Your task to perform on an android device: uninstall "Google Chat" Image 0: 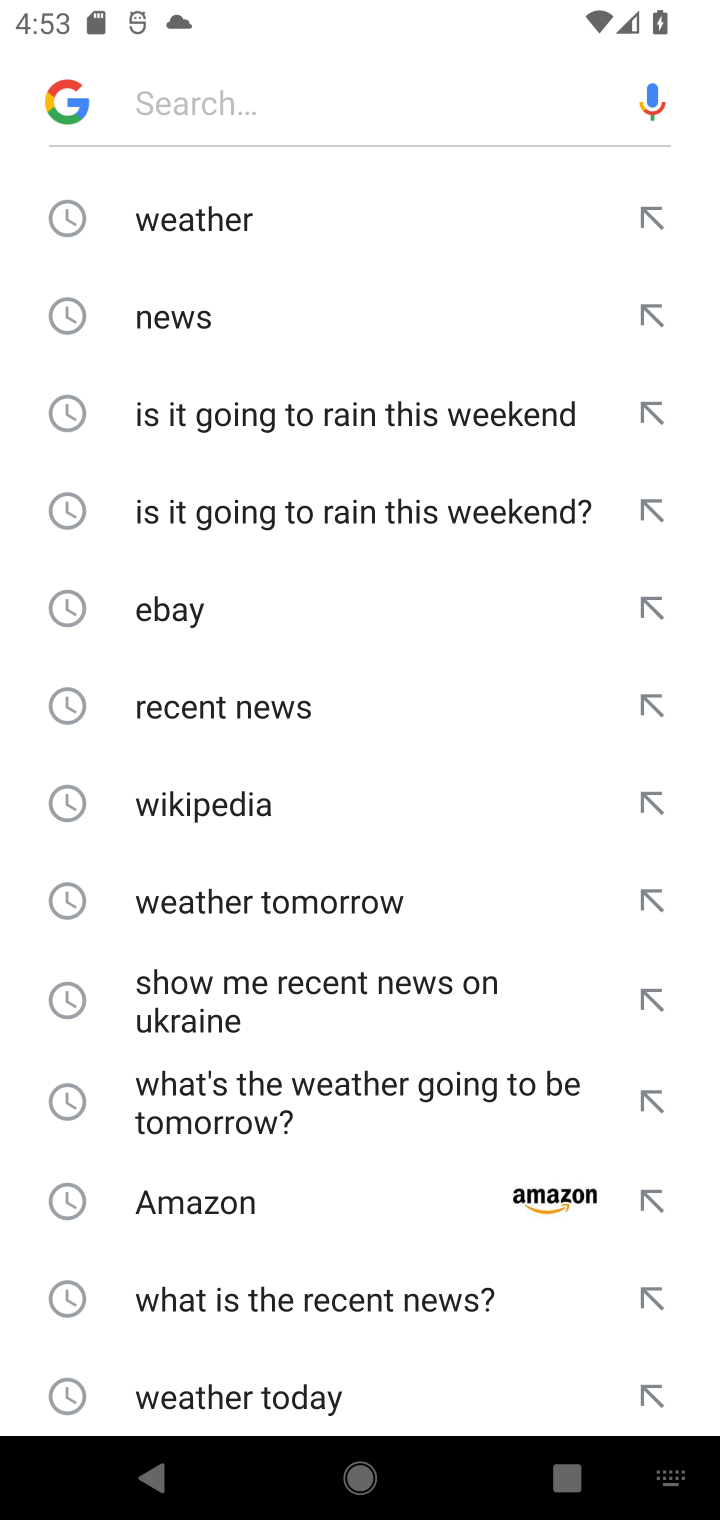
Step 0: press home button
Your task to perform on an android device: uninstall "Google Chat" Image 1: 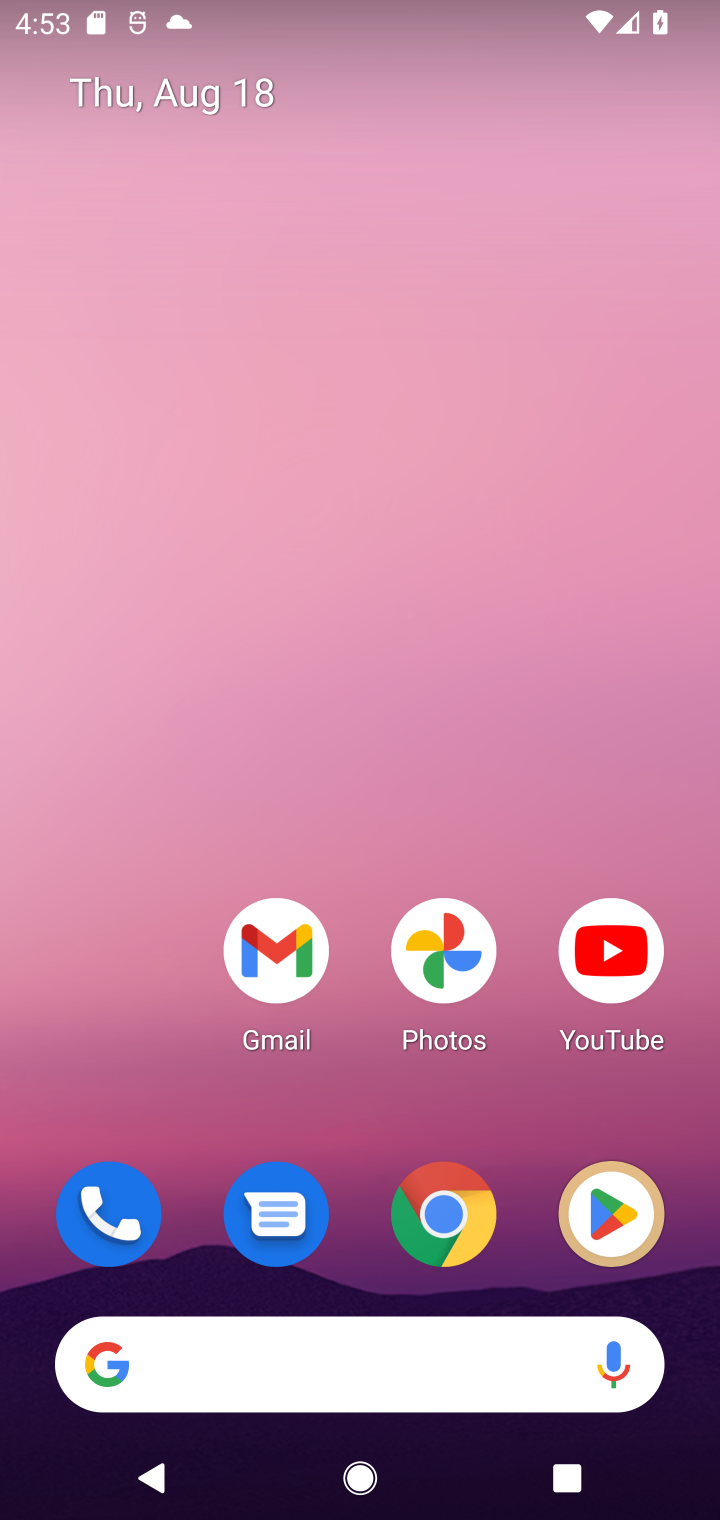
Step 1: click (590, 1203)
Your task to perform on an android device: uninstall "Google Chat" Image 2: 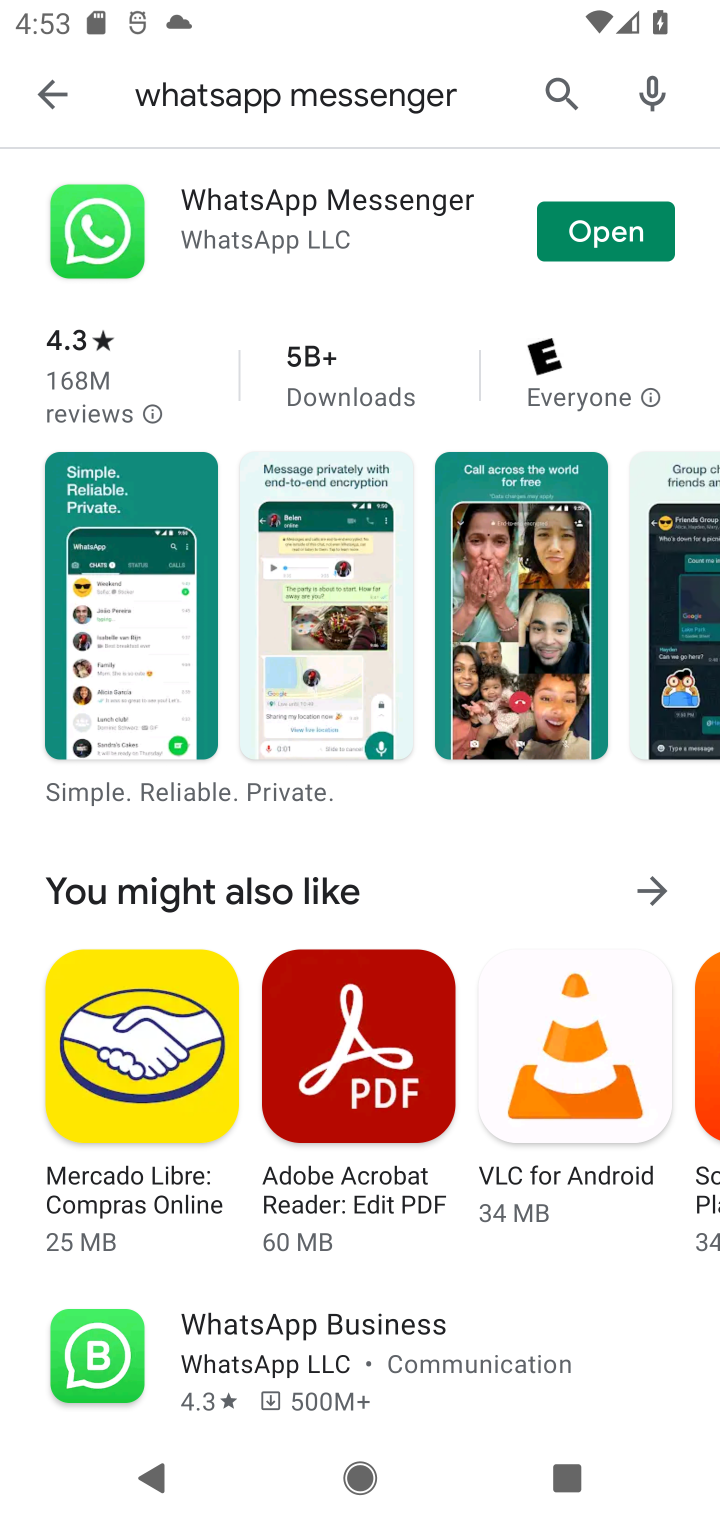
Step 2: click (311, 104)
Your task to perform on an android device: uninstall "Google Chat" Image 3: 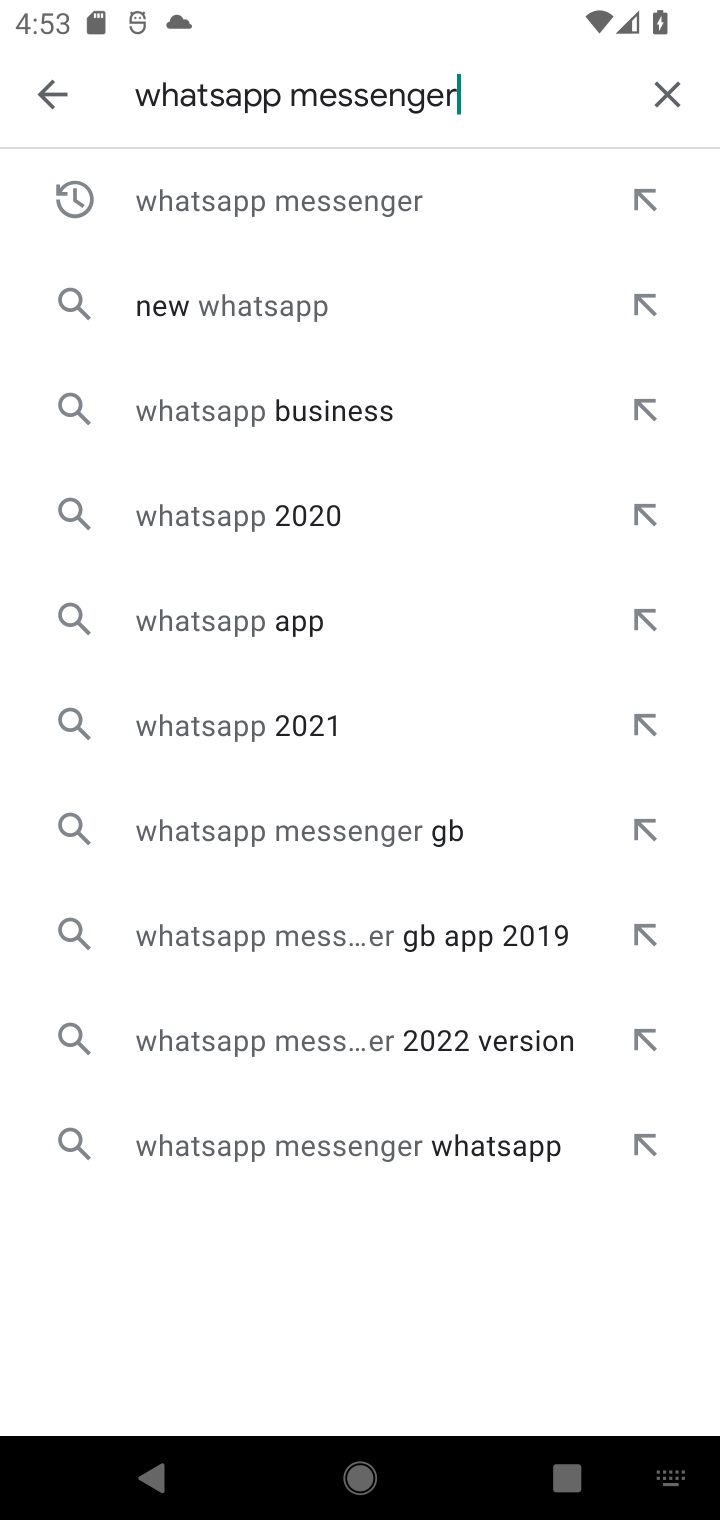
Step 3: click (660, 86)
Your task to perform on an android device: uninstall "Google Chat" Image 4: 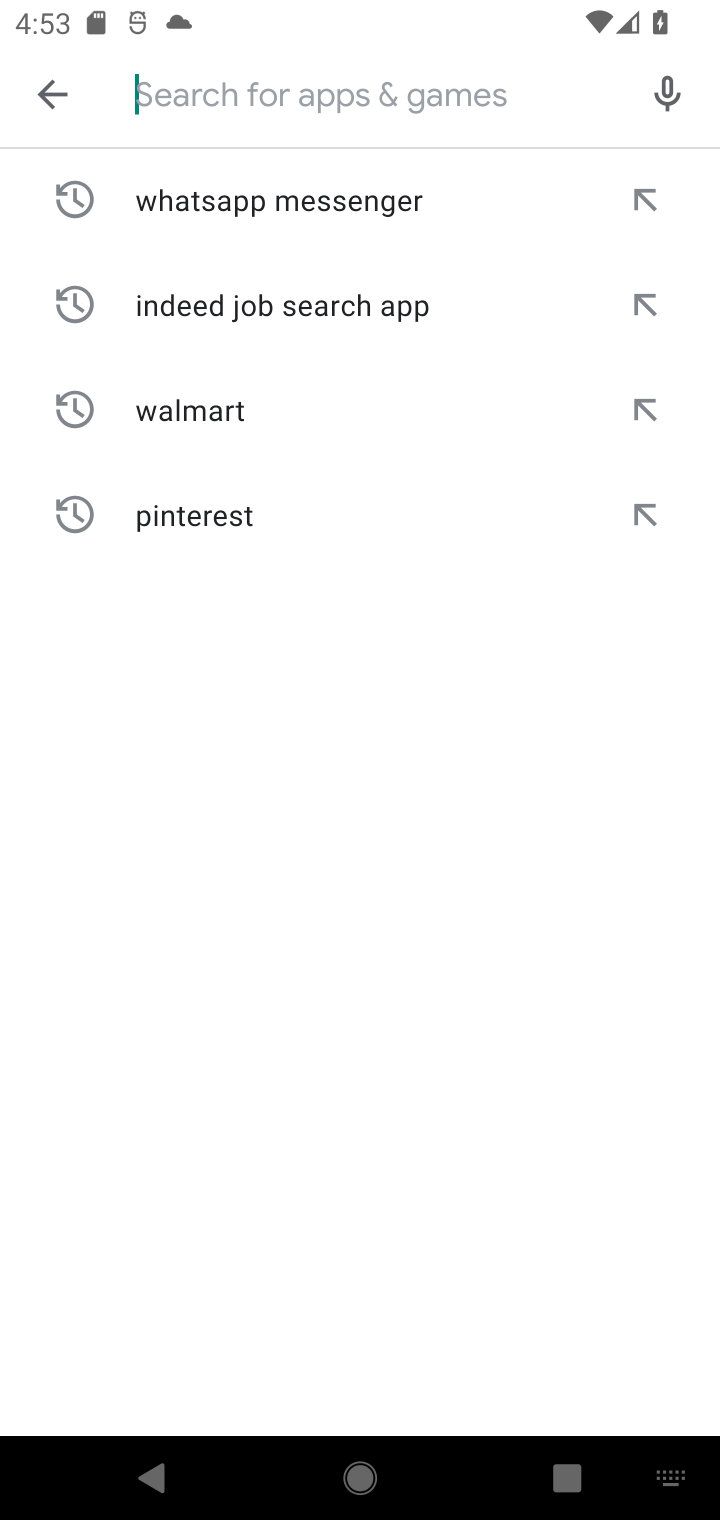
Step 4: type "Google chat"
Your task to perform on an android device: uninstall "Google Chat" Image 5: 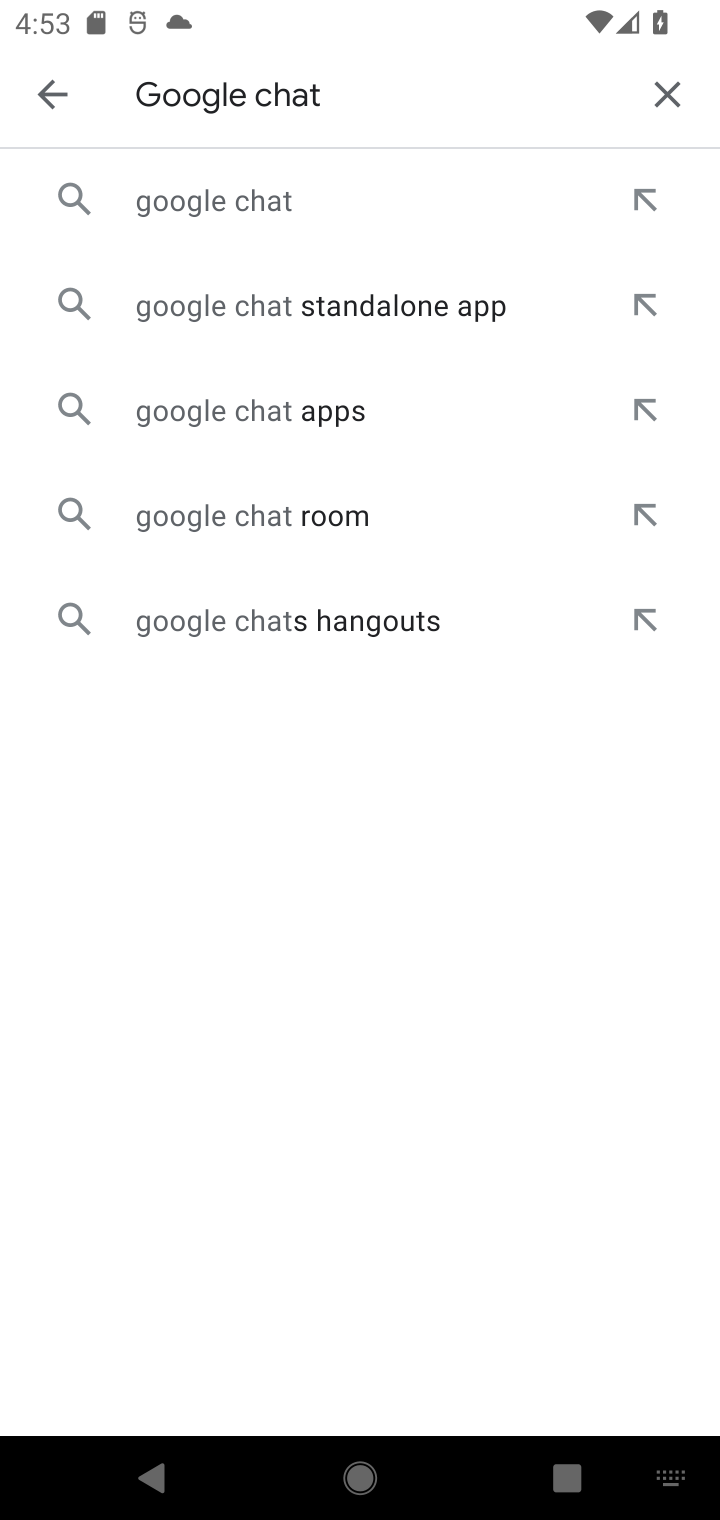
Step 5: click (279, 192)
Your task to perform on an android device: uninstall "Google Chat" Image 6: 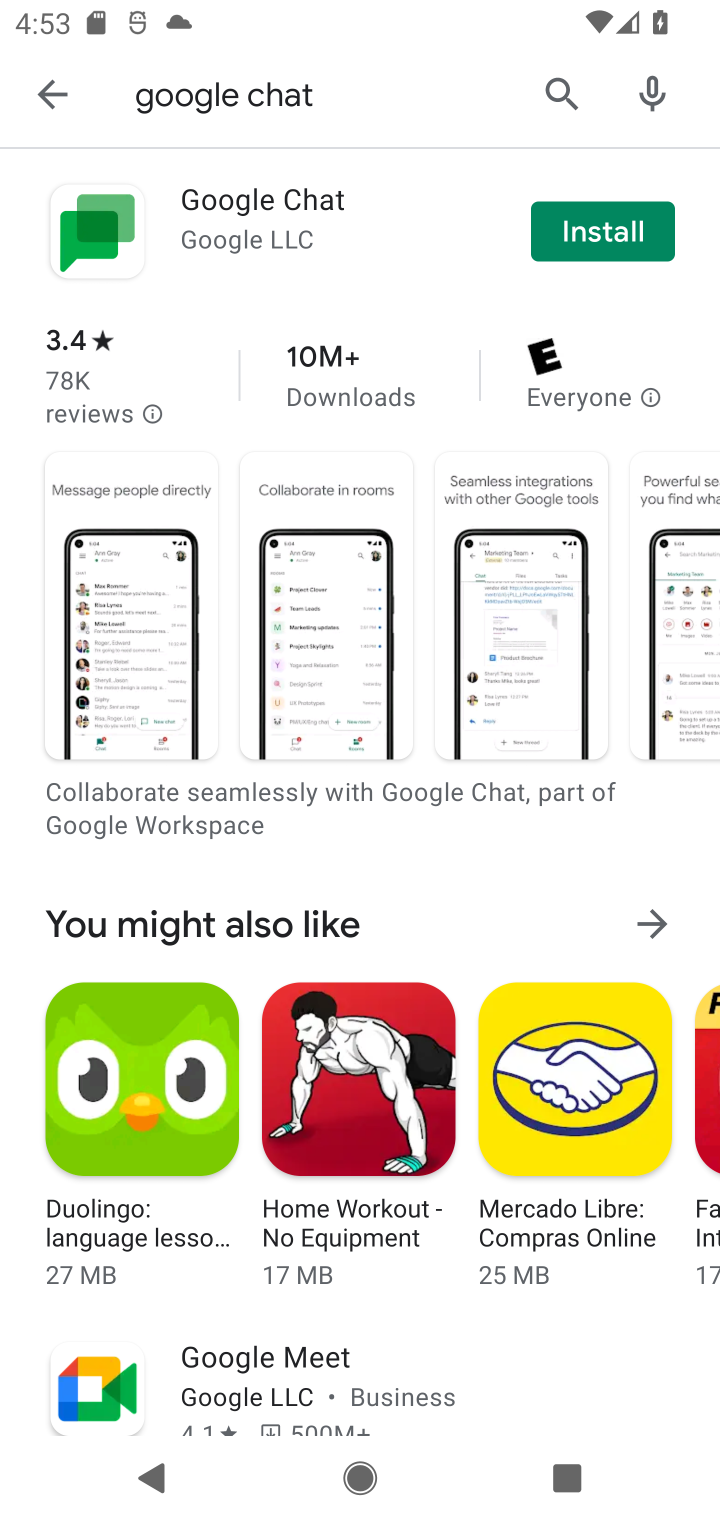
Step 6: task complete